Your task to perform on an android device: Show me recent news Image 0: 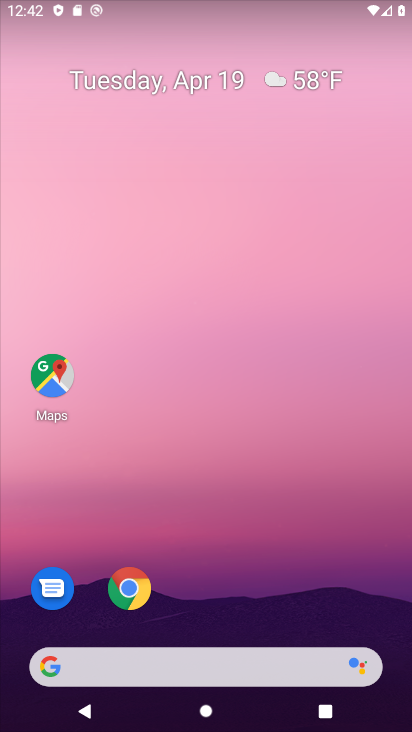
Step 0: click (197, 179)
Your task to perform on an android device: Show me recent news Image 1: 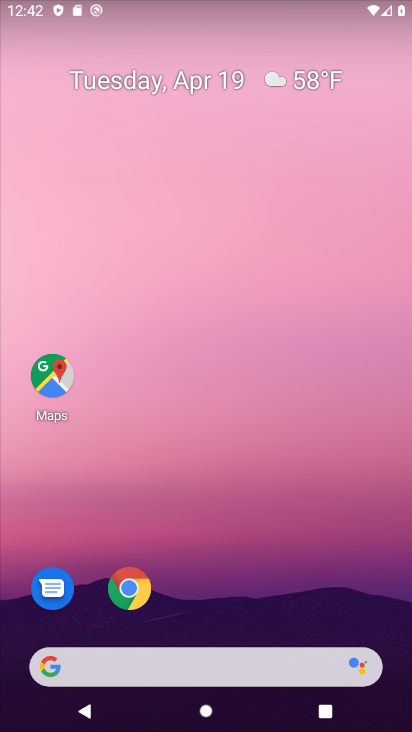
Step 1: drag from (193, 585) to (195, 184)
Your task to perform on an android device: Show me recent news Image 2: 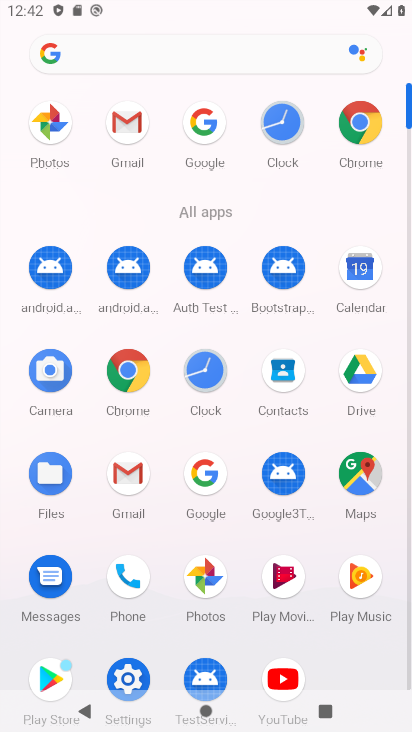
Step 2: click (203, 130)
Your task to perform on an android device: Show me recent news Image 3: 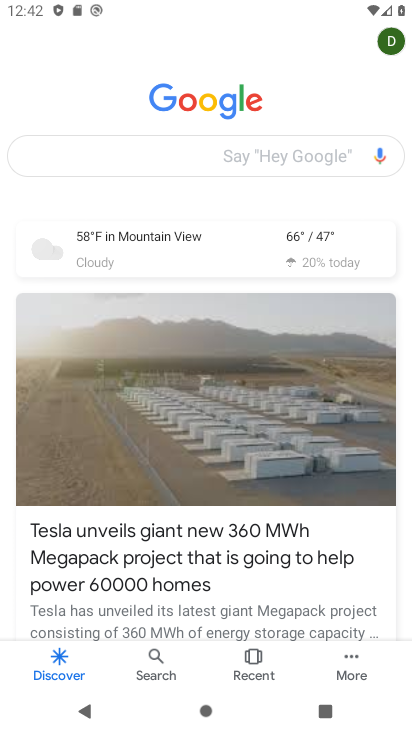
Step 3: task complete